Your task to perform on an android device: Open Google Chrome and click the shortcut for Amazon.com Image 0: 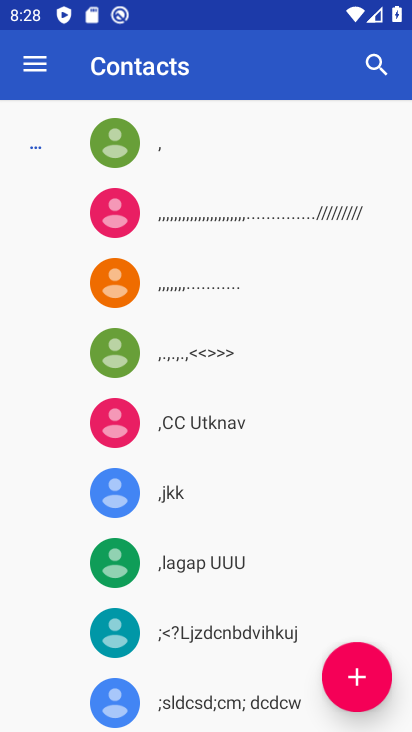
Step 0: press back button
Your task to perform on an android device: Open Google Chrome and click the shortcut for Amazon.com Image 1: 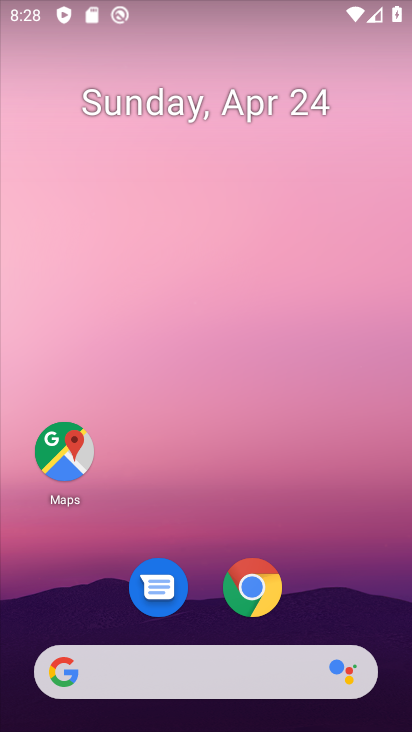
Step 1: click (262, 580)
Your task to perform on an android device: Open Google Chrome and click the shortcut for Amazon.com Image 2: 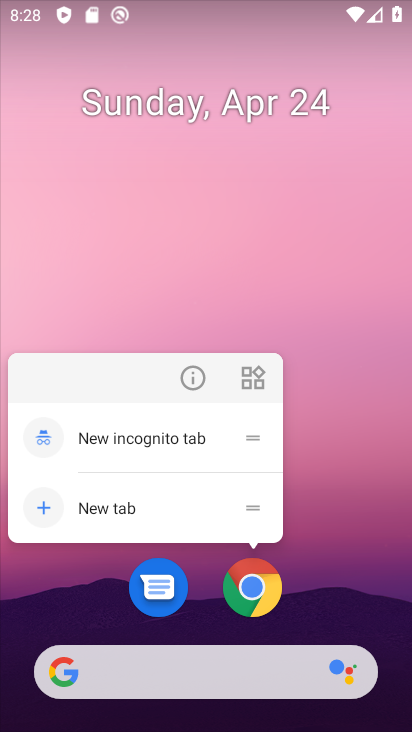
Step 2: click (255, 592)
Your task to perform on an android device: Open Google Chrome and click the shortcut for Amazon.com Image 3: 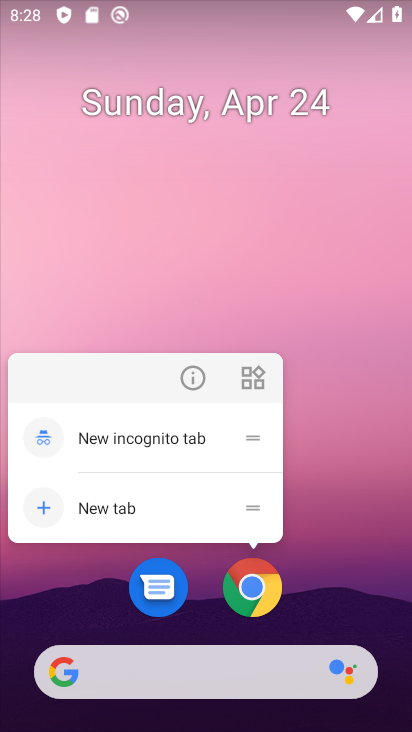
Step 3: click (252, 595)
Your task to perform on an android device: Open Google Chrome and click the shortcut for Amazon.com Image 4: 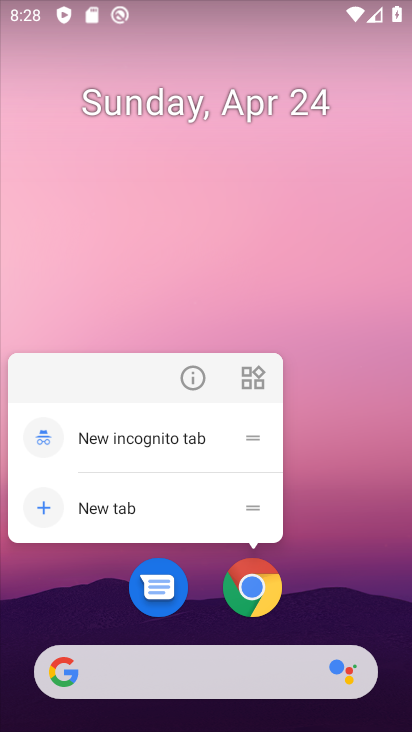
Step 4: click (253, 588)
Your task to perform on an android device: Open Google Chrome and click the shortcut for Amazon.com Image 5: 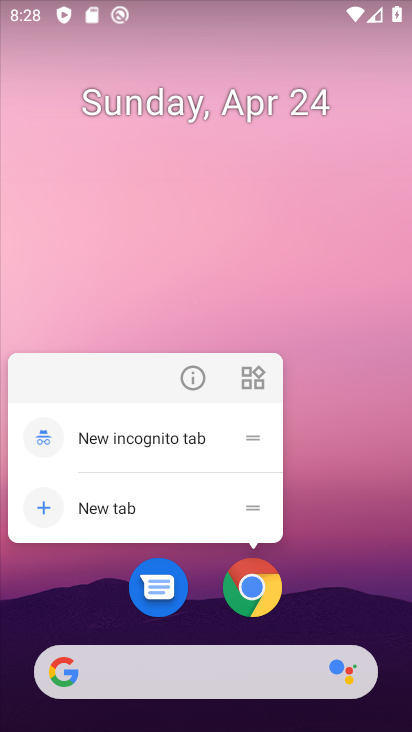
Step 5: click (258, 591)
Your task to perform on an android device: Open Google Chrome and click the shortcut for Amazon.com Image 6: 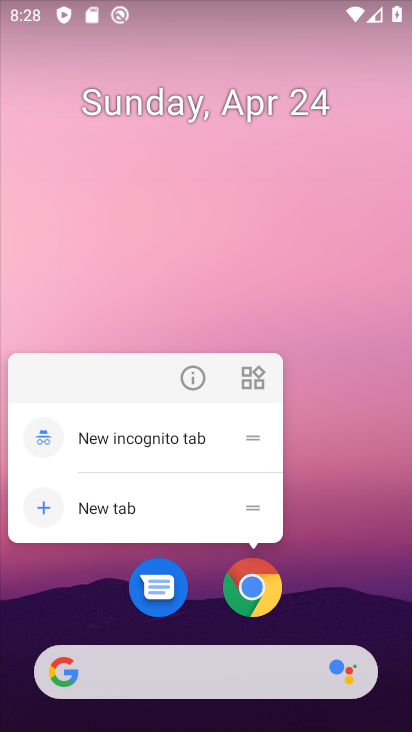
Step 6: click (253, 586)
Your task to perform on an android device: Open Google Chrome and click the shortcut for Amazon.com Image 7: 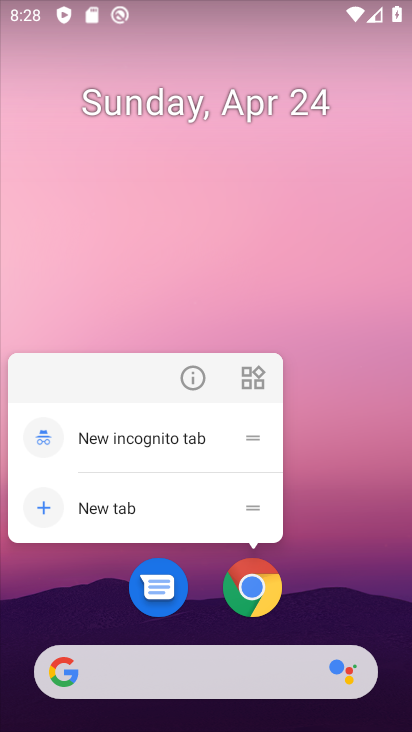
Step 7: click (257, 588)
Your task to perform on an android device: Open Google Chrome and click the shortcut for Amazon.com Image 8: 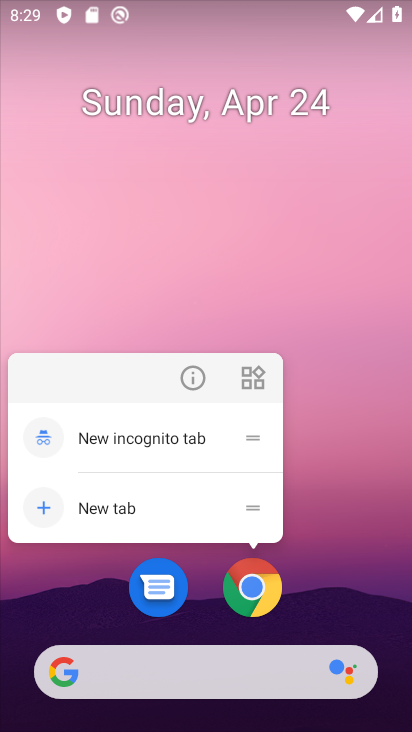
Step 8: click (251, 580)
Your task to perform on an android device: Open Google Chrome and click the shortcut for Amazon.com Image 9: 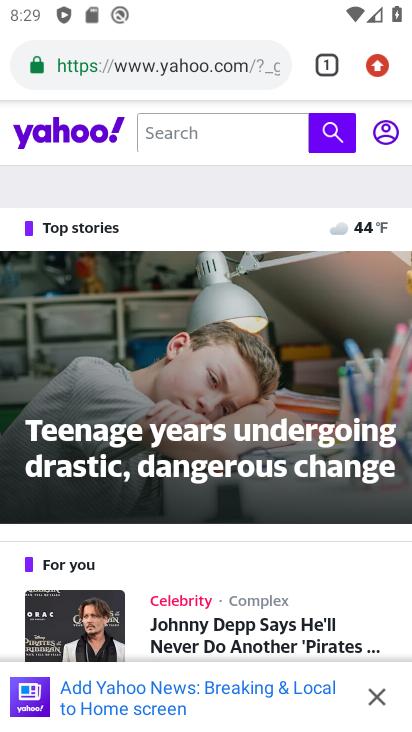
Step 9: click (324, 66)
Your task to perform on an android device: Open Google Chrome and click the shortcut for Amazon.com Image 10: 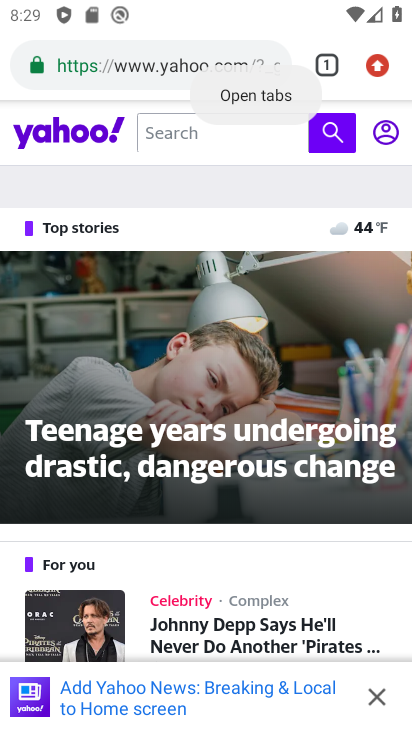
Step 10: click (321, 61)
Your task to perform on an android device: Open Google Chrome and click the shortcut for Amazon.com Image 11: 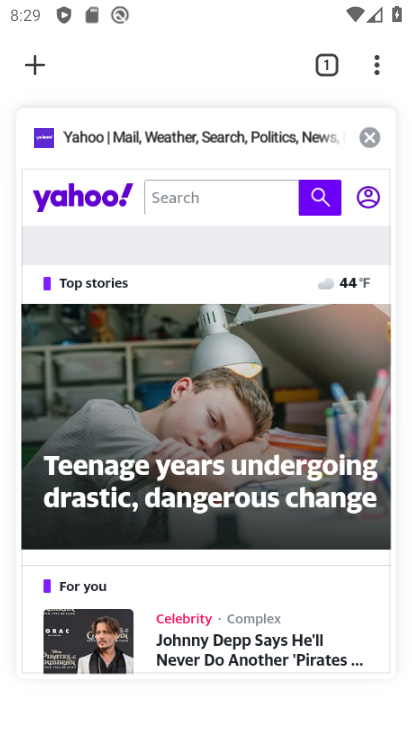
Step 11: click (31, 62)
Your task to perform on an android device: Open Google Chrome and click the shortcut for Amazon.com Image 12: 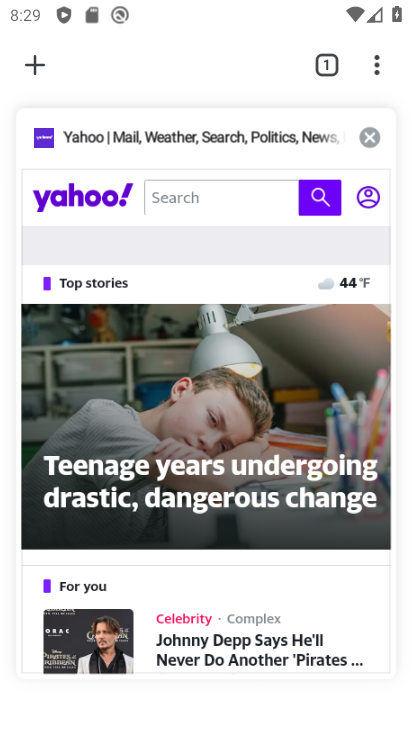
Step 12: click (41, 67)
Your task to perform on an android device: Open Google Chrome and click the shortcut for Amazon.com Image 13: 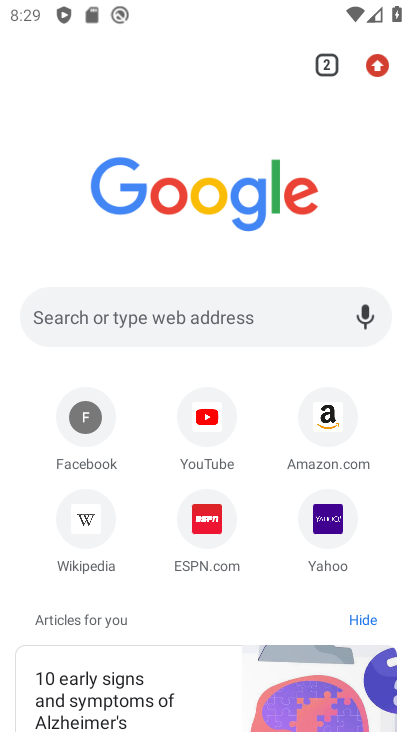
Step 13: click (342, 427)
Your task to perform on an android device: Open Google Chrome and click the shortcut for Amazon.com Image 14: 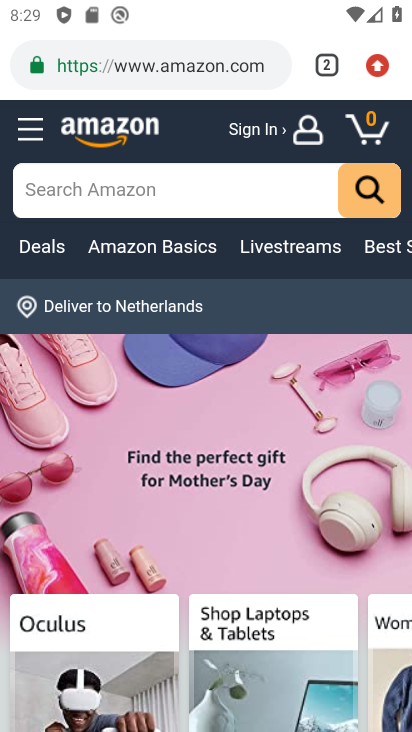
Step 14: task complete